Your task to perform on an android device: change the upload size in google photos Image 0: 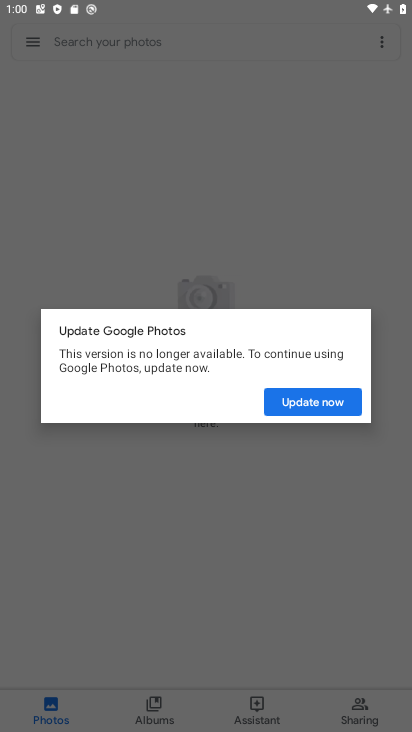
Step 0: press home button
Your task to perform on an android device: change the upload size in google photos Image 1: 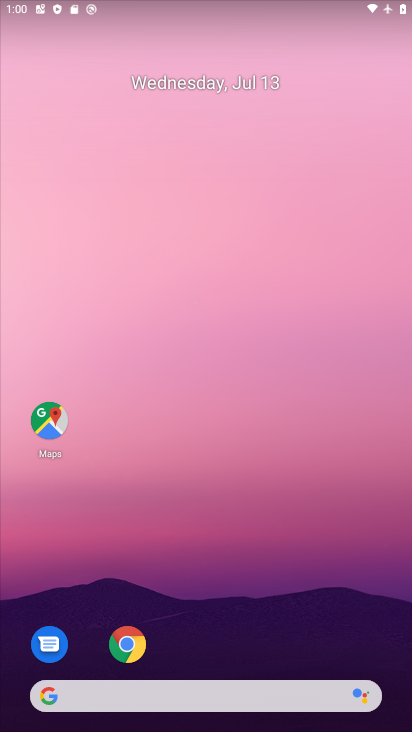
Step 1: drag from (279, 590) to (241, 53)
Your task to perform on an android device: change the upload size in google photos Image 2: 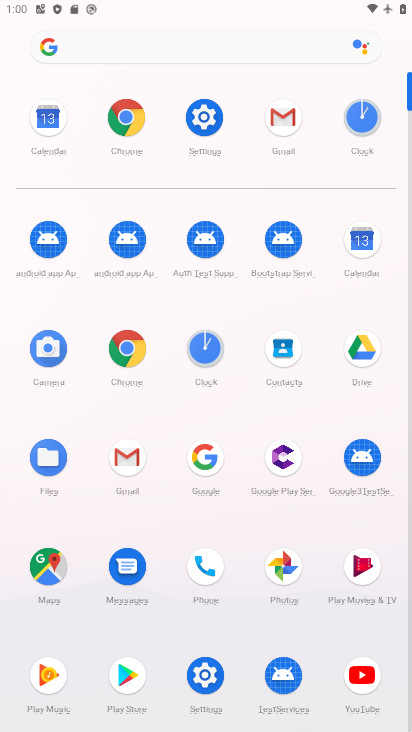
Step 2: click (295, 566)
Your task to perform on an android device: change the upload size in google photos Image 3: 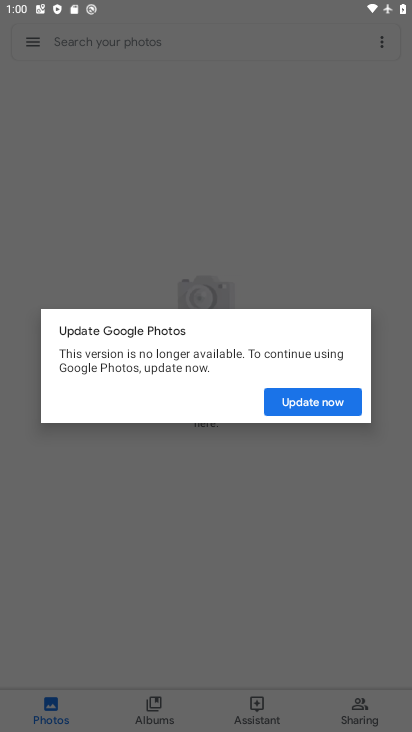
Step 3: click (269, 438)
Your task to perform on an android device: change the upload size in google photos Image 4: 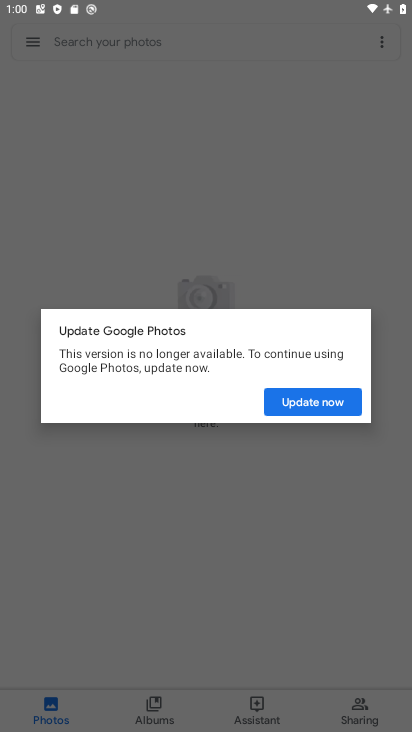
Step 4: task complete